Your task to perform on an android device: Open eBay Image 0: 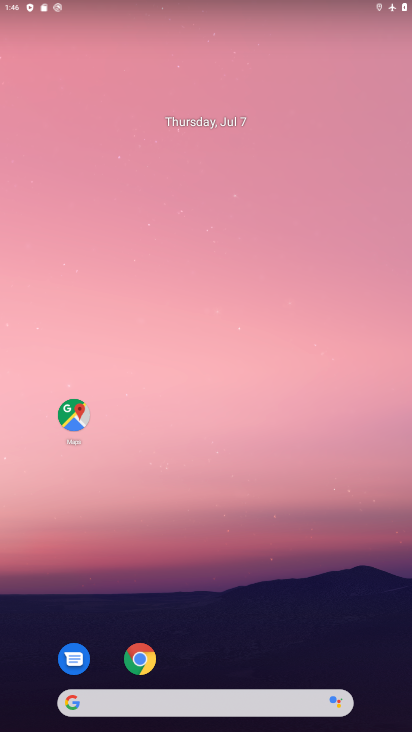
Step 0: drag from (167, 655) to (206, 235)
Your task to perform on an android device: Open eBay Image 1: 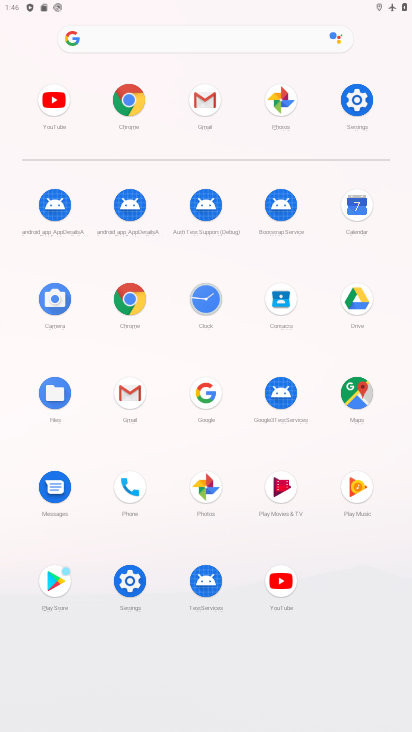
Step 1: click (131, 115)
Your task to perform on an android device: Open eBay Image 2: 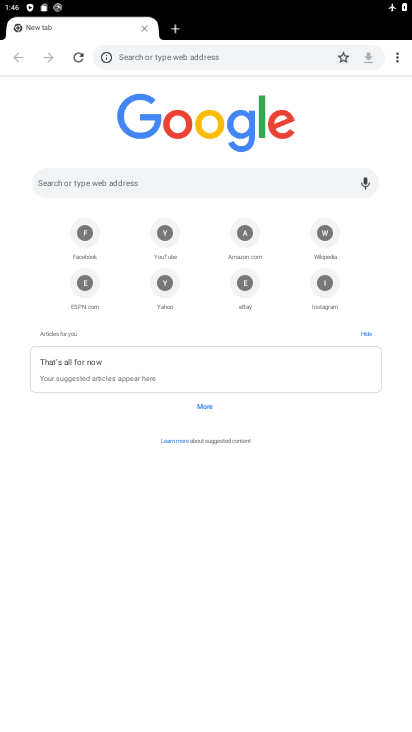
Step 2: click (250, 301)
Your task to perform on an android device: Open eBay Image 3: 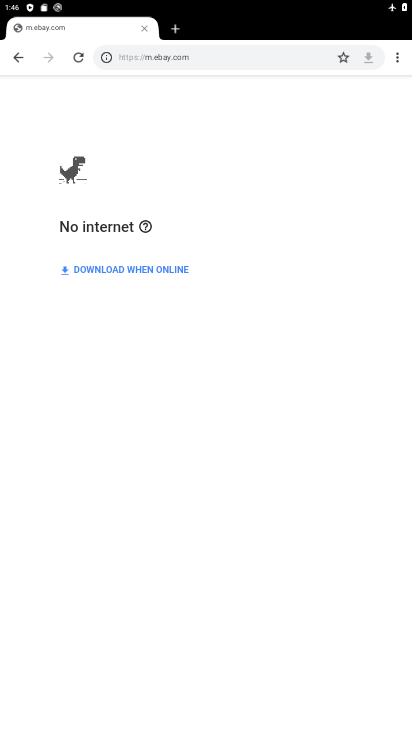
Step 3: task complete